Your task to perform on an android device: toggle translation in the chrome app Image 0: 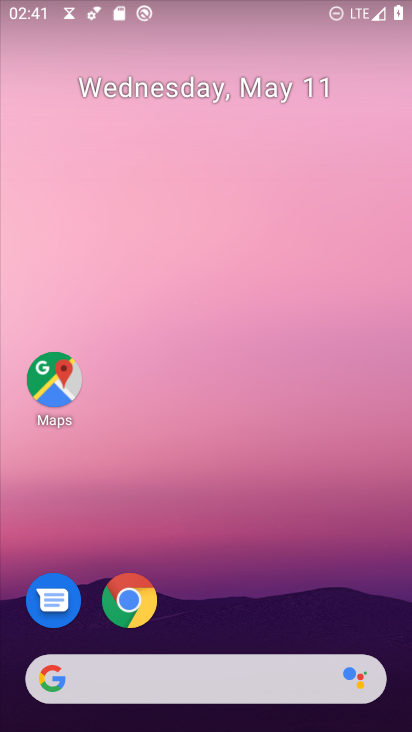
Step 0: drag from (292, 596) to (284, 227)
Your task to perform on an android device: toggle translation in the chrome app Image 1: 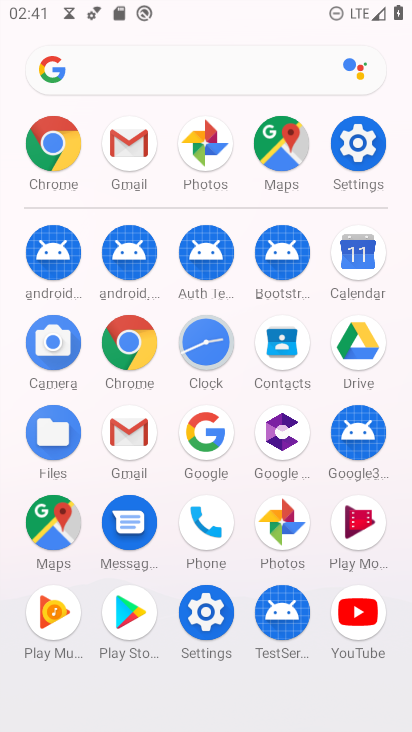
Step 1: click (57, 134)
Your task to perform on an android device: toggle translation in the chrome app Image 2: 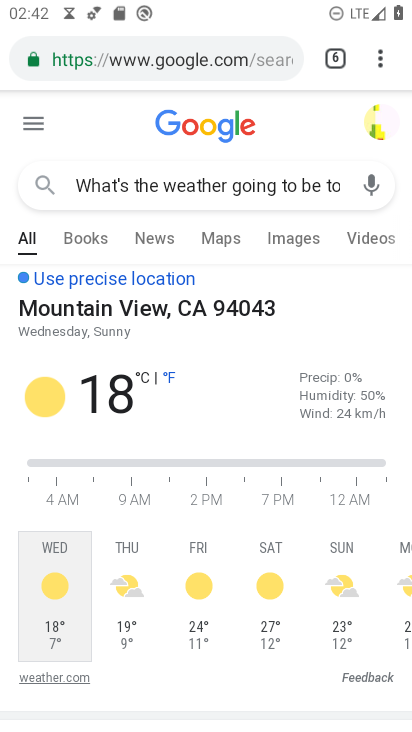
Step 2: click (364, 54)
Your task to perform on an android device: toggle translation in the chrome app Image 3: 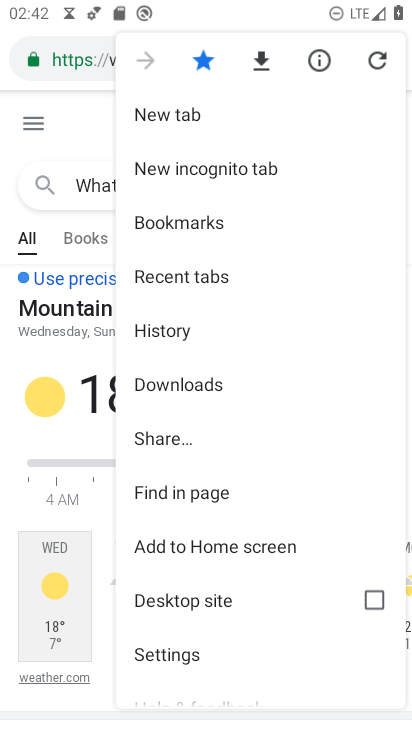
Step 3: click (192, 653)
Your task to perform on an android device: toggle translation in the chrome app Image 4: 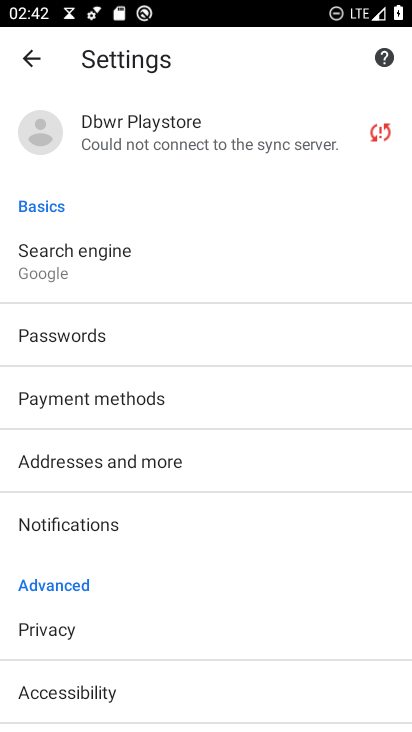
Step 4: drag from (171, 649) to (235, 296)
Your task to perform on an android device: toggle translation in the chrome app Image 5: 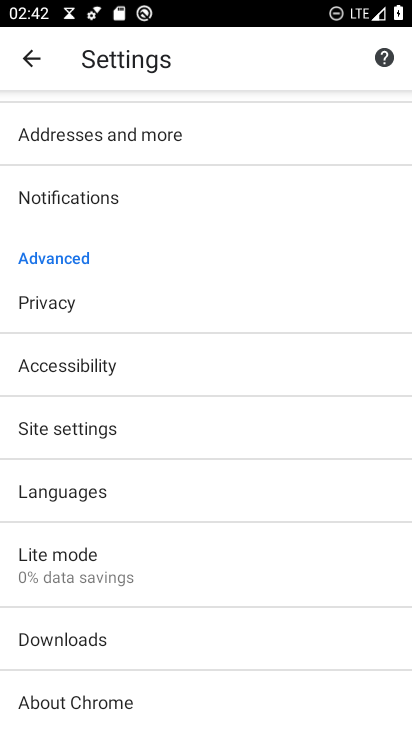
Step 5: click (121, 488)
Your task to perform on an android device: toggle translation in the chrome app Image 6: 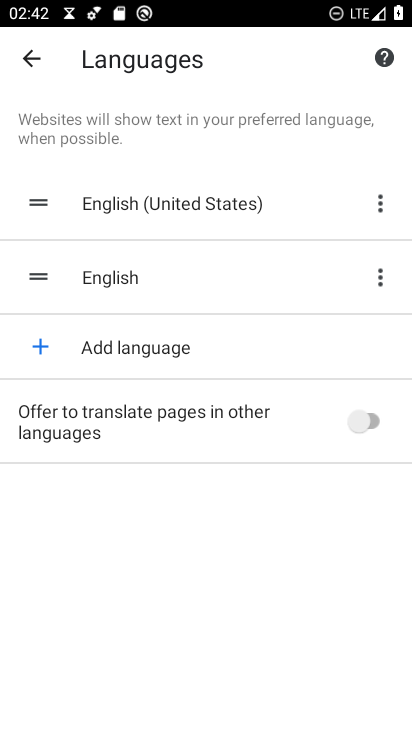
Step 6: click (365, 426)
Your task to perform on an android device: toggle translation in the chrome app Image 7: 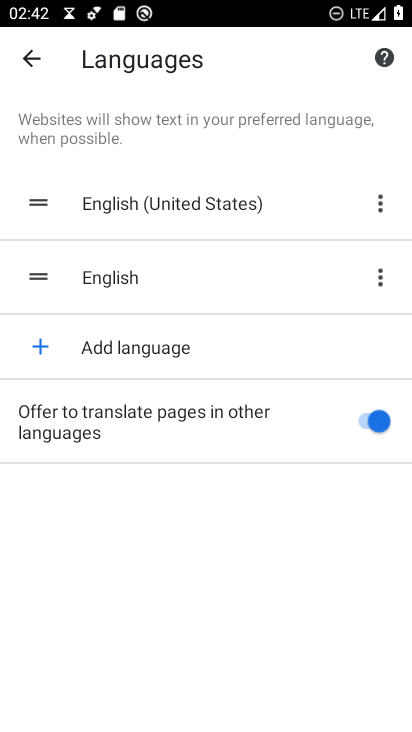
Step 7: task complete